Your task to perform on an android device: check out phone information Image 0: 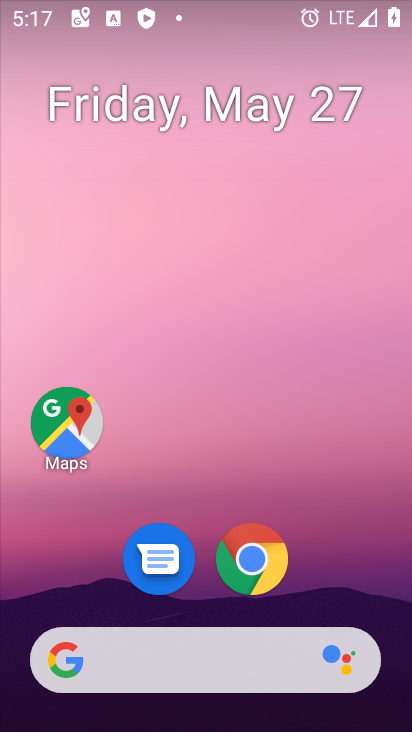
Step 0: drag from (224, 670) to (321, 2)
Your task to perform on an android device: check out phone information Image 1: 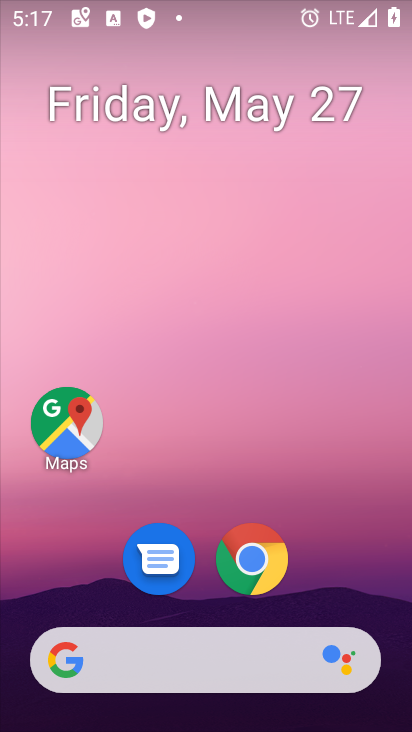
Step 1: drag from (256, 647) to (288, 8)
Your task to perform on an android device: check out phone information Image 2: 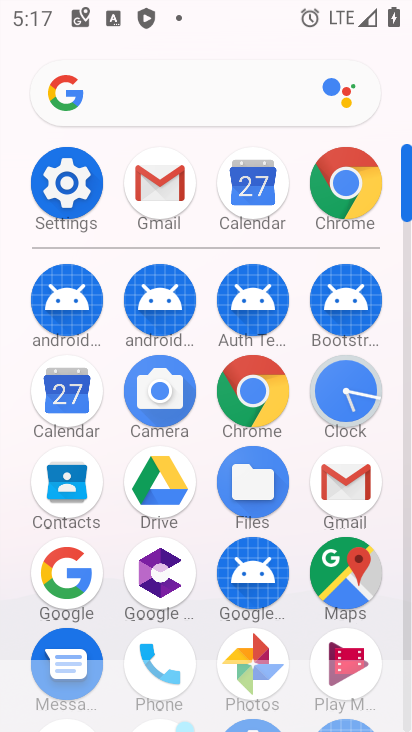
Step 2: click (78, 183)
Your task to perform on an android device: check out phone information Image 3: 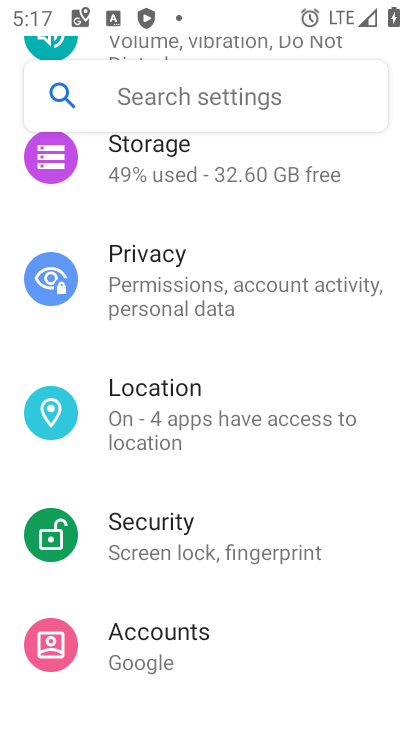
Step 3: drag from (204, 660) to (365, 58)
Your task to perform on an android device: check out phone information Image 4: 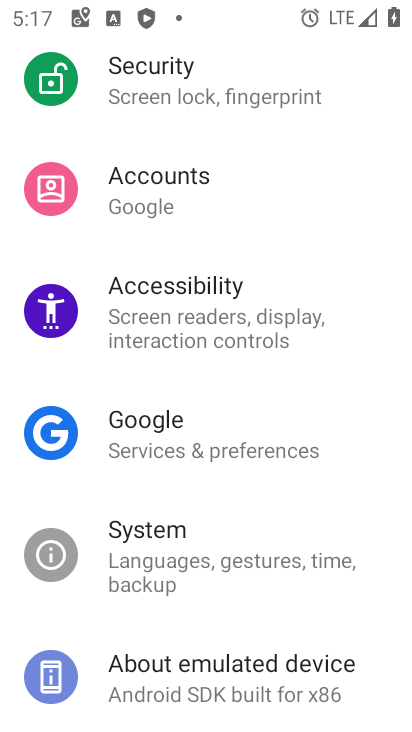
Step 4: drag from (256, 675) to (282, 101)
Your task to perform on an android device: check out phone information Image 5: 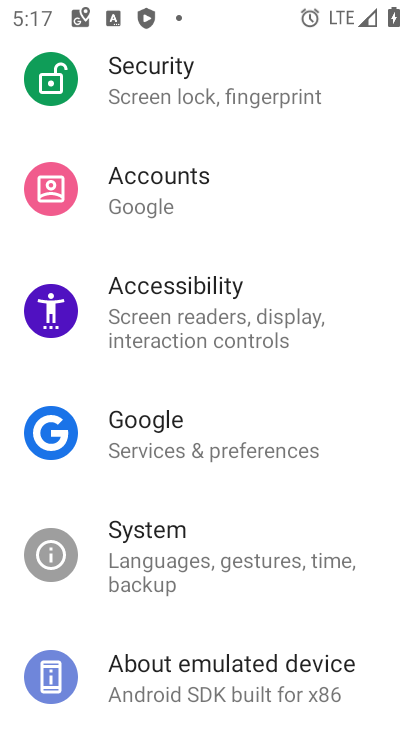
Step 5: click (224, 663)
Your task to perform on an android device: check out phone information Image 6: 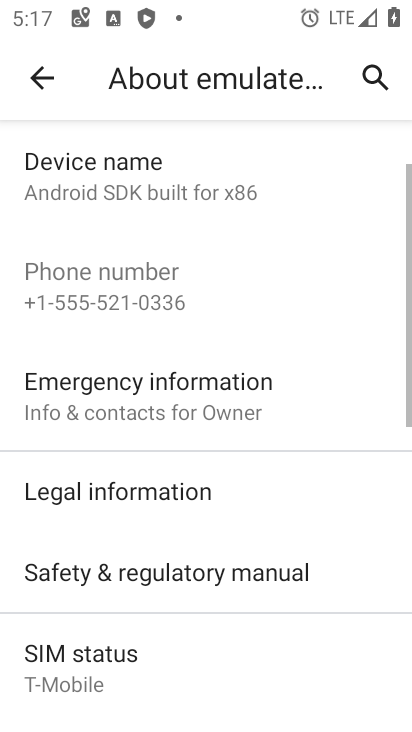
Step 6: task complete